Your task to perform on an android device: Is it going to rain today? Image 0: 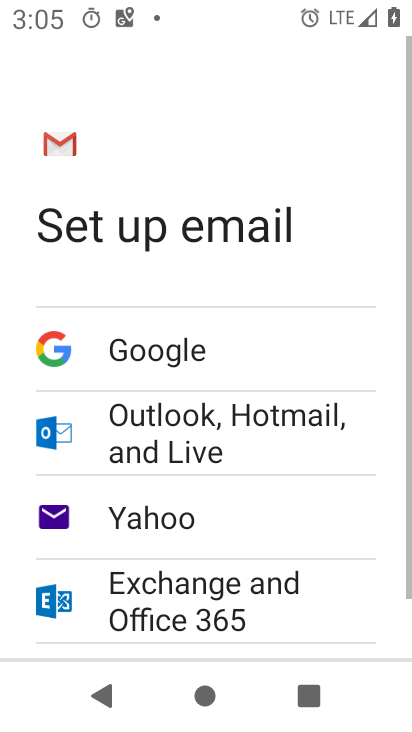
Step 0: press home button
Your task to perform on an android device: Is it going to rain today? Image 1: 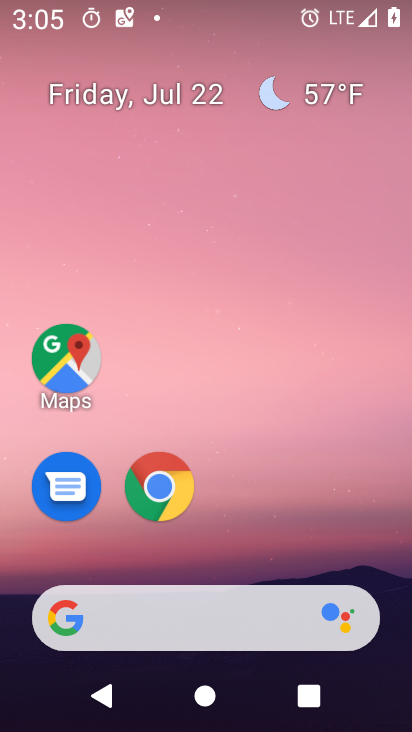
Step 1: drag from (357, 531) to (351, 111)
Your task to perform on an android device: Is it going to rain today? Image 2: 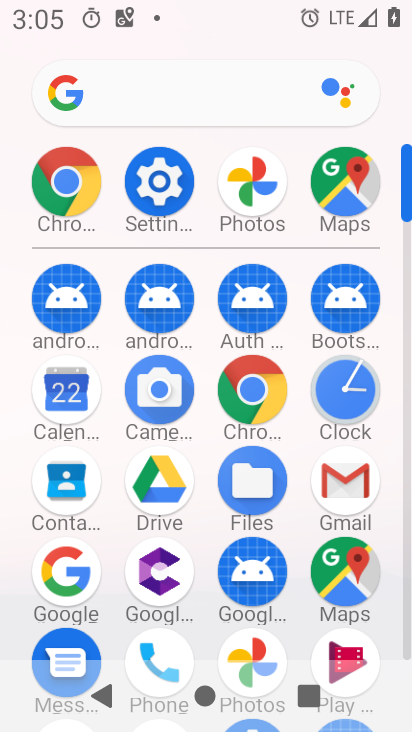
Step 2: click (207, 86)
Your task to perform on an android device: Is it going to rain today? Image 3: 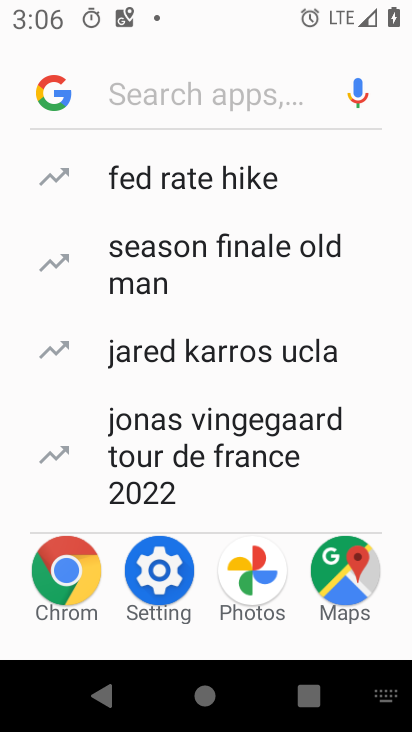
Step 3: type "weather"
Your task to perform on an android device: Is it going to rain today? Image 4: 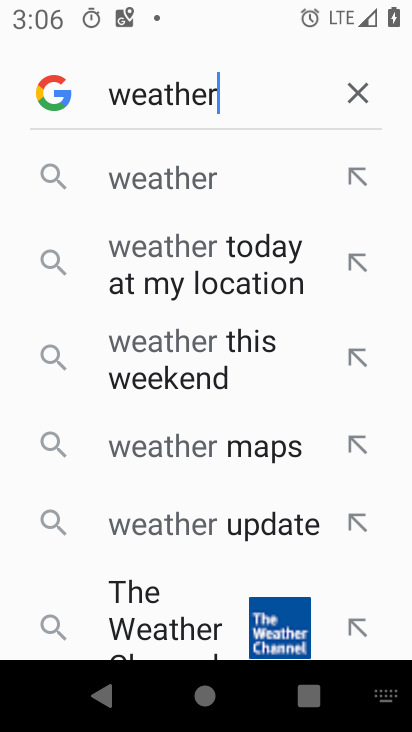
Step 4: click (225, 193)
Your task to perform on an android device: Is it going to rain today? Image 5: 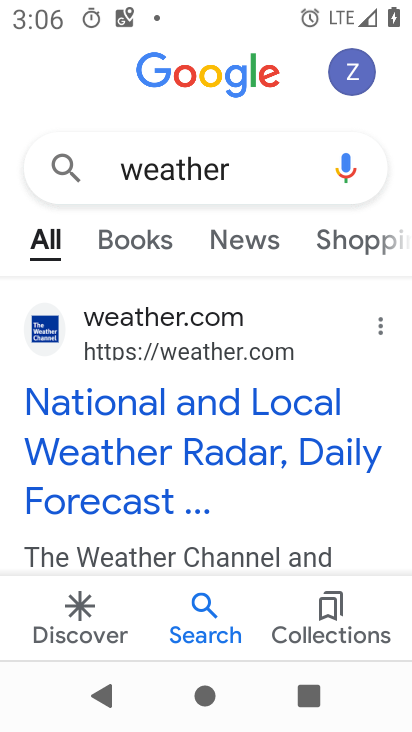
Step 5: task complete